Your task to perform on an android device: Toggle the flashlight Image 0: 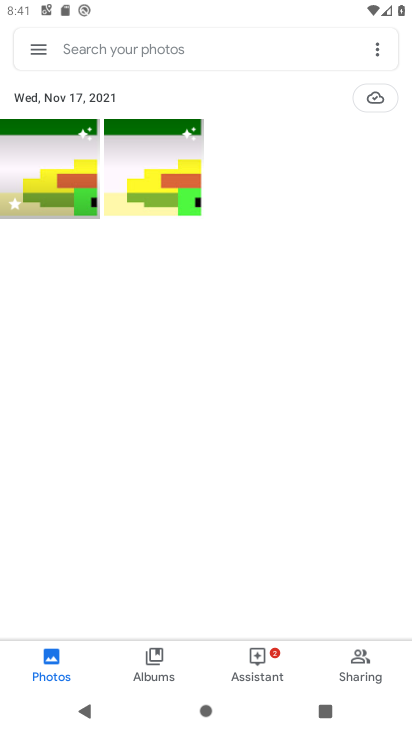
Step 0: press home button
Your task to perform on an android device: Toggle the flashlight Image 1: 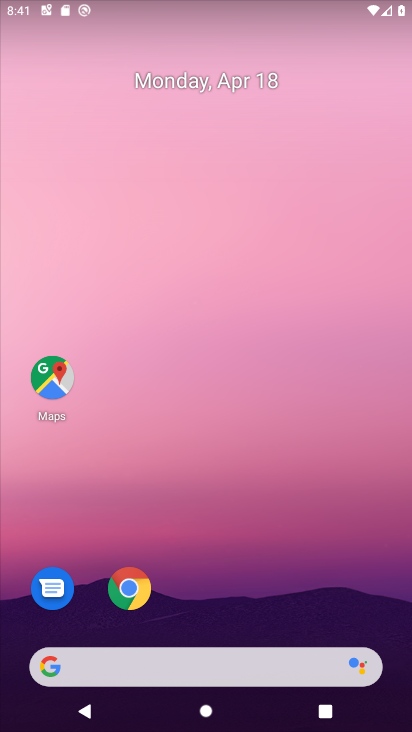
Step 1: drag from (236, 537) to (345, 58)
Your task to perform on an android device: Toggle the flashlight Image 2: 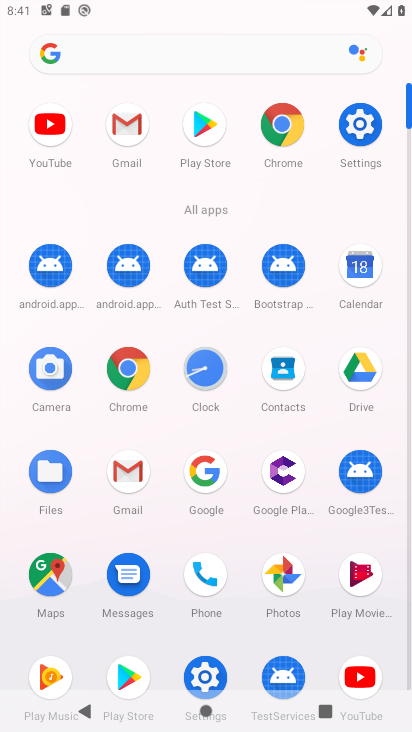
Step 2: click (359, 128)
Your task to perform on an android device: Toggle the flashlight Image 3: 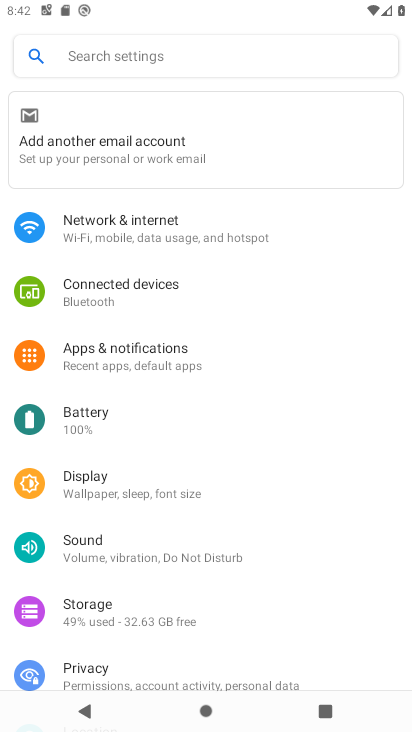
Step 3: task complete